Your task to perform on an android device: Search for "usb-c" on newegg.com, select the first entry, add it to the cart, then select checkout. Image 0: 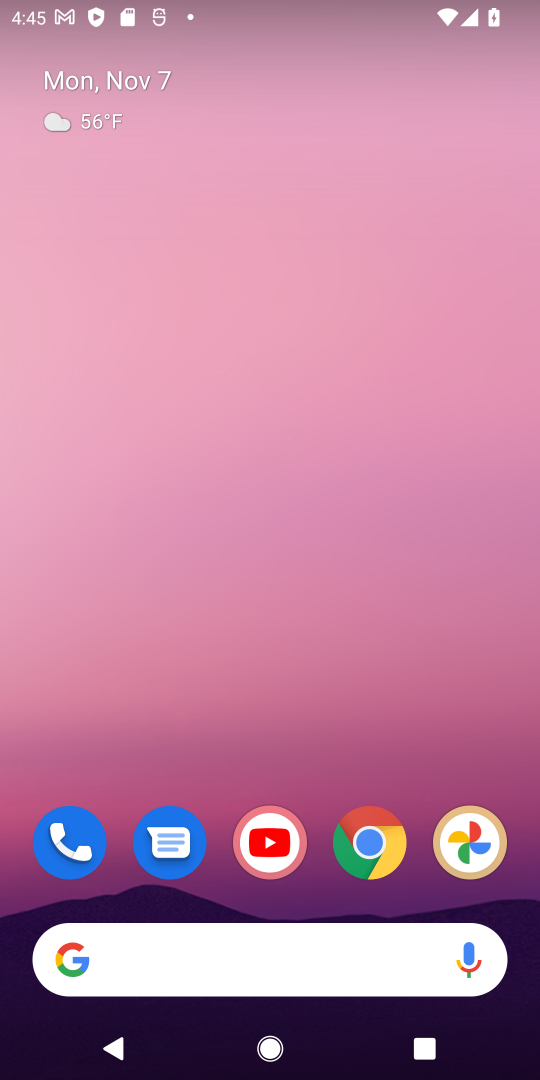
Step 0: click (366, 857)
Your task to perform on an android device: Search for "usb-c" on newegg.com, select the first entry, add it to the cart, then select checkout. Image 1: 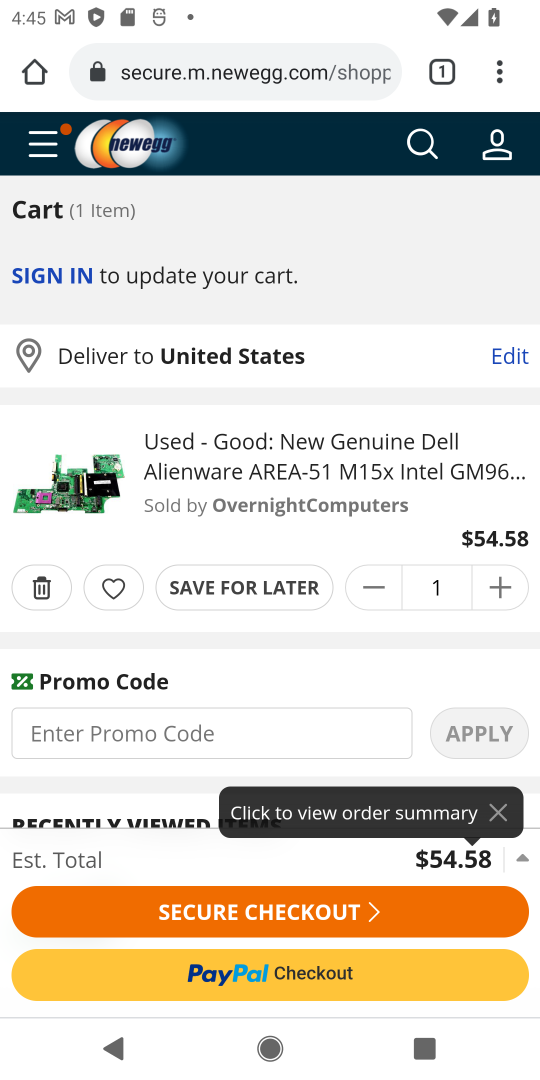
Step 1: drag from (187, 232) to (237, 699)
Your task to perform on an android device: Search for "usb-c" on newegg.com, select the first entry, add it to the cart, then select checkout. Image 2: 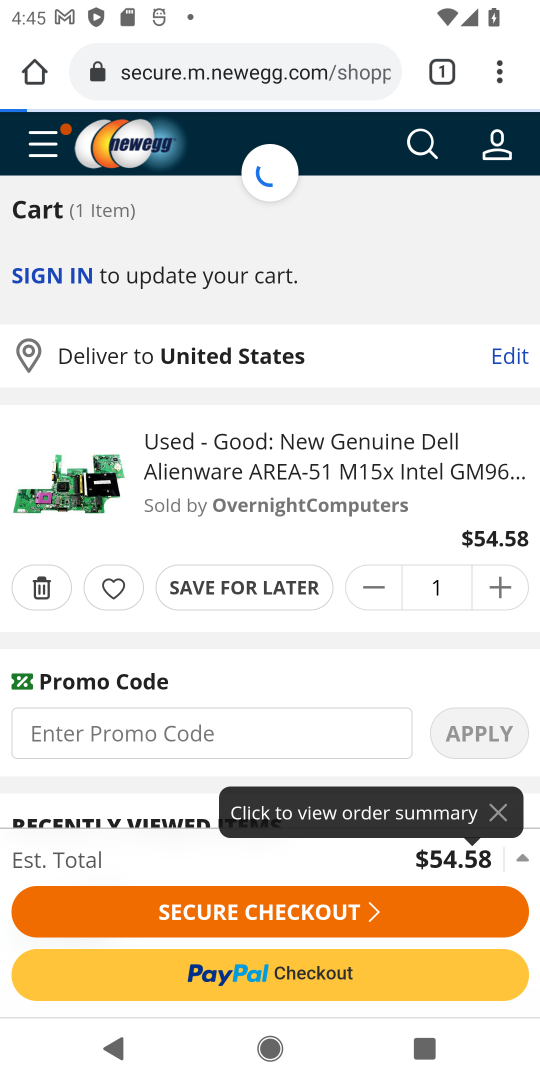
Step 2: click (430, 146)
Your task to perform on an android device: Search for "usb-c" on newegg.com, select the first entry, add it to the cart, then select checkout. Image 3: 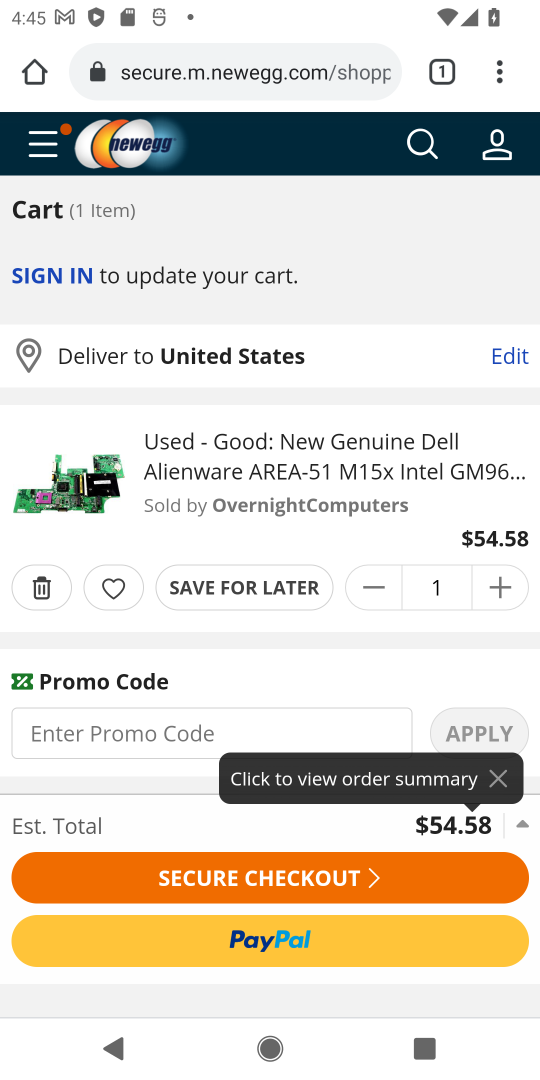
Step 3: click (417, 140)
Your task to perform on an android device: Search for "usb-c" on newegg.com, select the first entry, add it to the cart, then select checkout. Image 4: 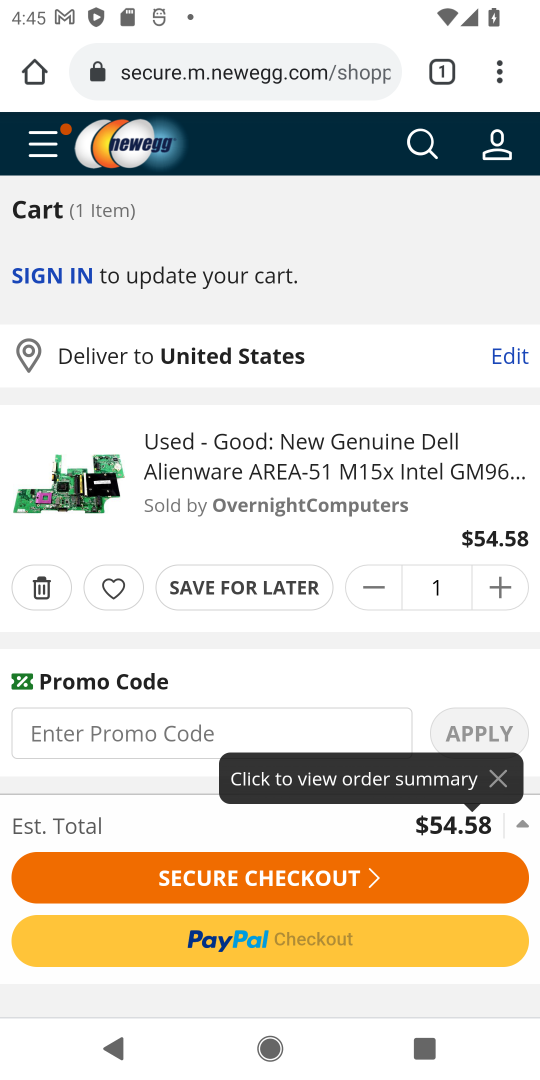
Step 4: drag from (422, 147) to (349, 131)
Your task to perform on an android device: Search for "usb-c" on newegg.com, select the first entry, add it to the cart, then select checkout. Image 5: 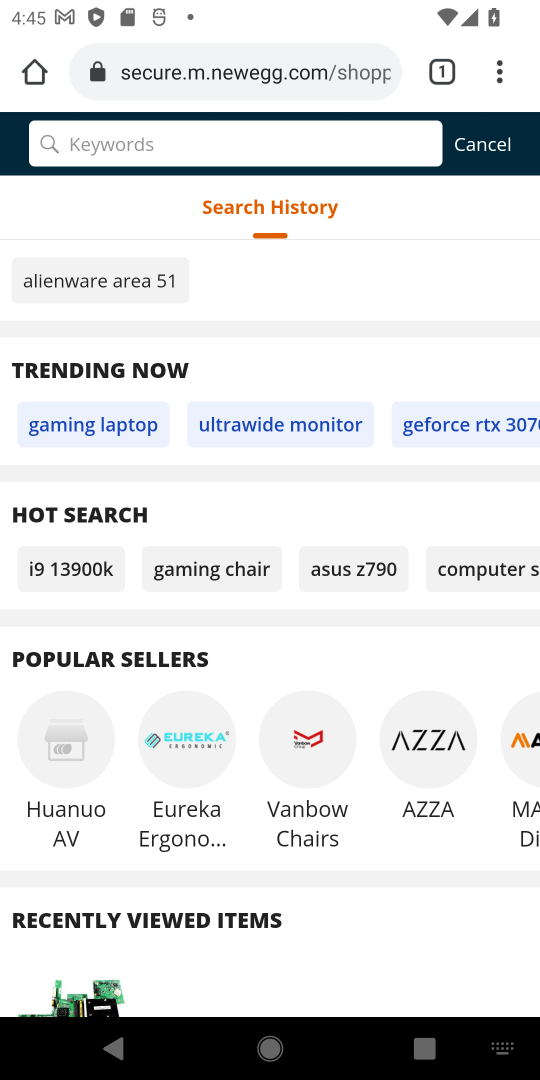
Step 5: type "usb-c"
Your task to perform on an android device: Search for "usb-c" on newegg.com, select the first entry, add it to the cart, then select checkout. Image 6: 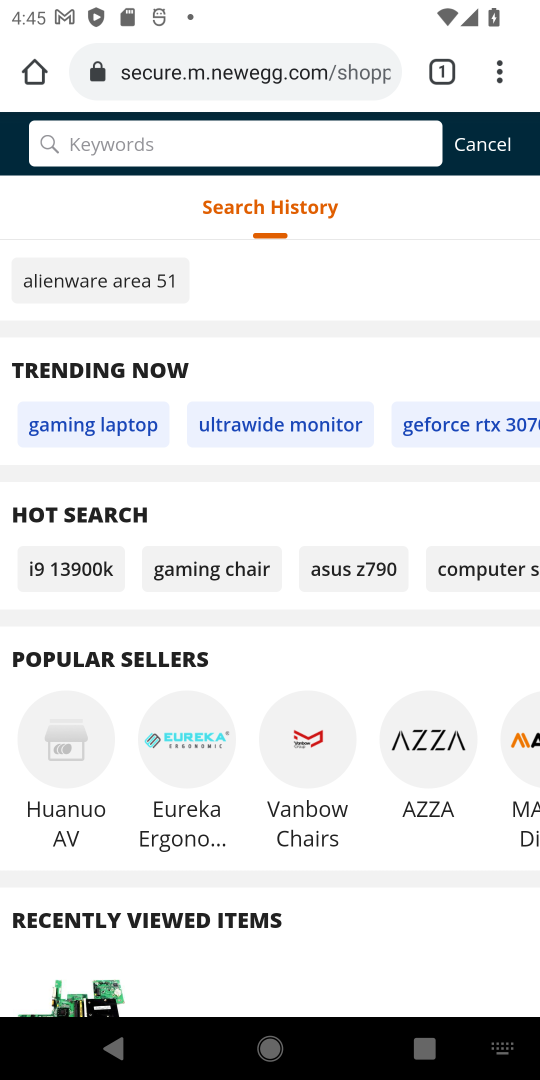
Step 6: press enter
Your task to perform on an android device: Search for "usb-c" on newegg.com, select the first entry, add it to the cart, then select checkout. Image 7: 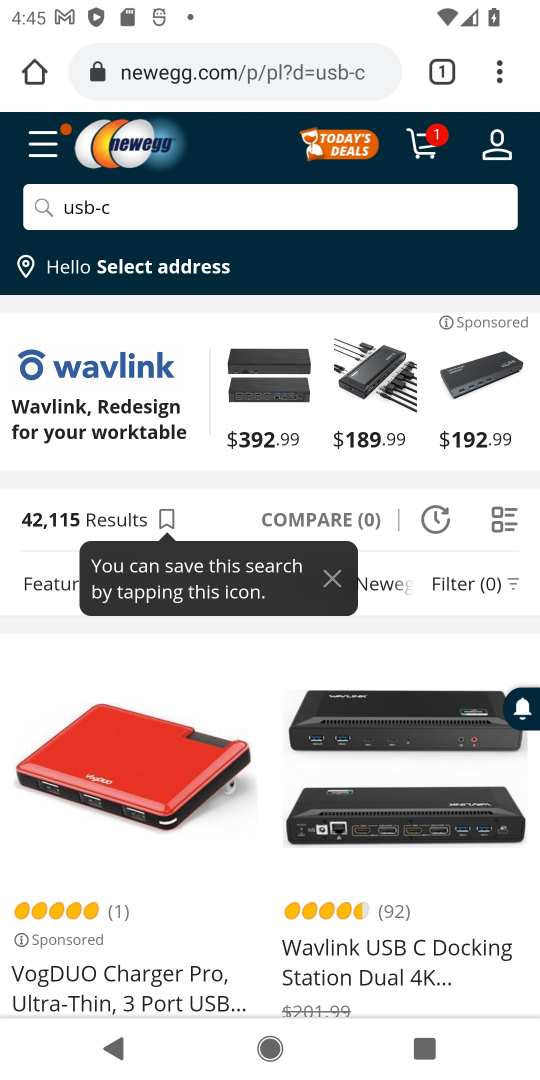
Step 7: drag from (223, 873) to (304, 471)
Your task to perform on an android device: Search for "usb-c" on newegg.com, select the first entry, add it to the cart, then select checkout. Image 8: 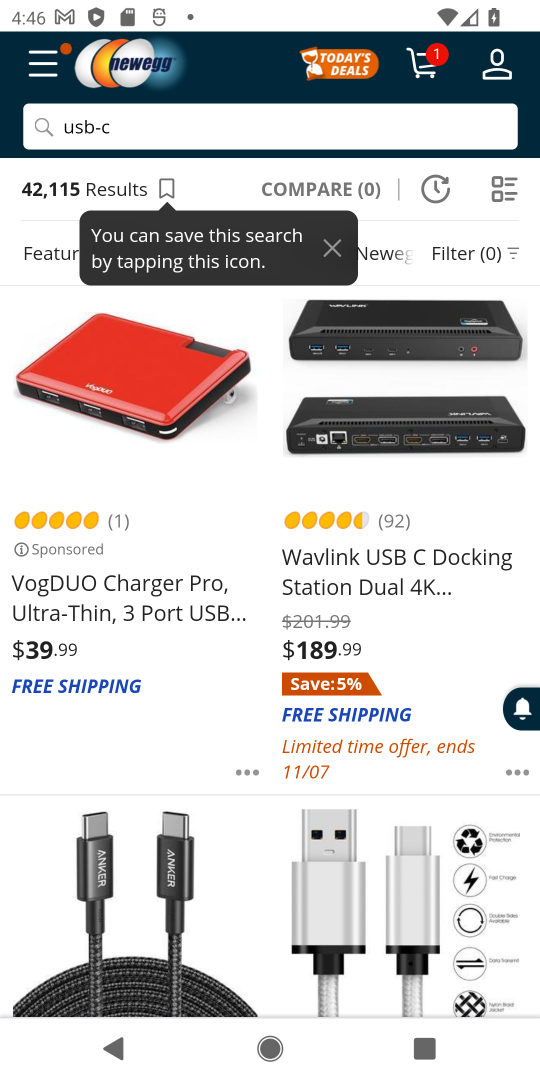
Step 8: click (162, 586)
Your task to perform on an android device: Search for "usb-c" on newegg.com, select the first entry, add it to the cart, then select checkout. Image 9: 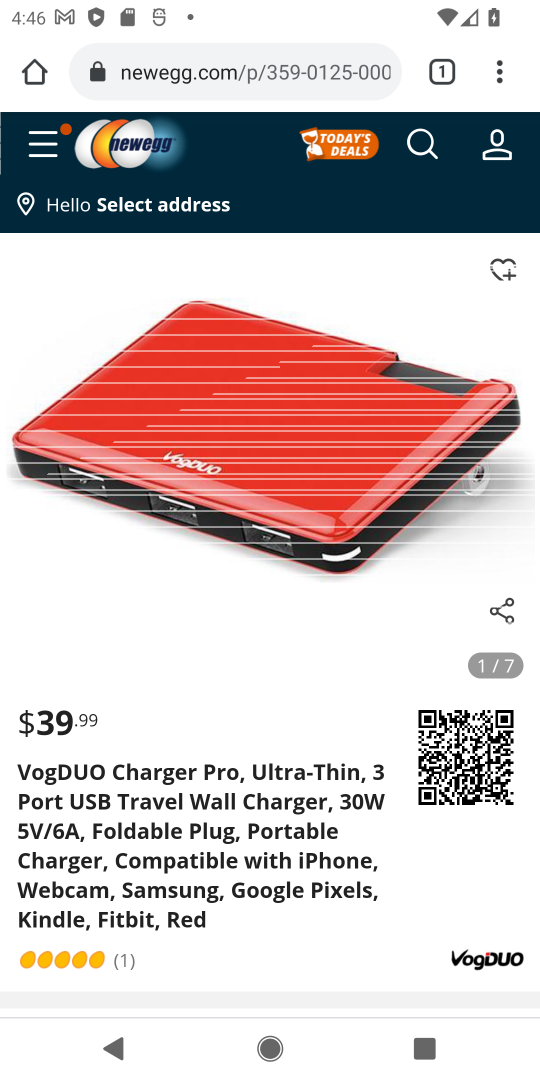
Step 9: task complete